Your task to perform on an android device: View the shopping cart on walmart. Image 0: 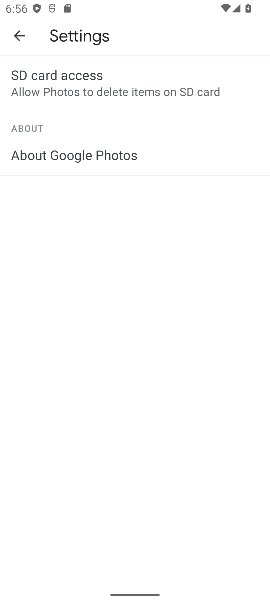
Step 0: press home button
Your task to perform on an android device: View the shopping cart on walmart. Image 1: 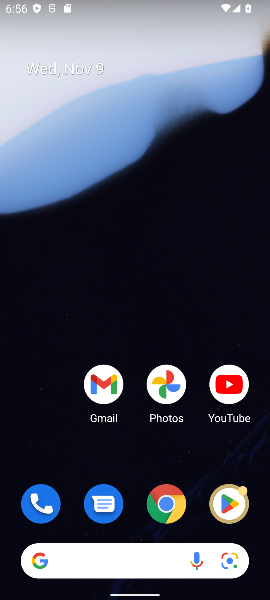
Step 1: click (163, 520)
Your task to perform on an android device: View the shopping cart on walmart. Image 2: 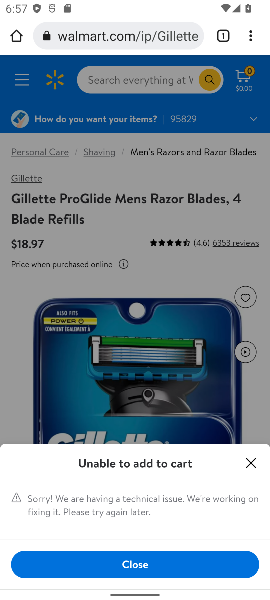
Step 2: click (250, 461)
Your task to perform on an android device: View the shopping cart on walmart. Image 3: 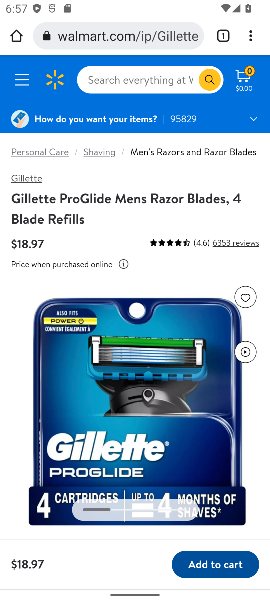
Step 3: click (115, 40)
Your task to perform on an android device: View the shopping cart on walmart. Image 4: 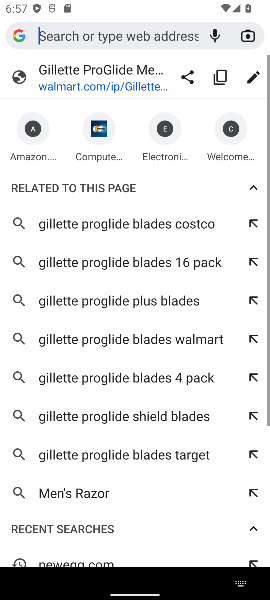
Step 4: click (117, 73)
Your task to perform on an android device: View the shopping cart on walmart. Image 5: 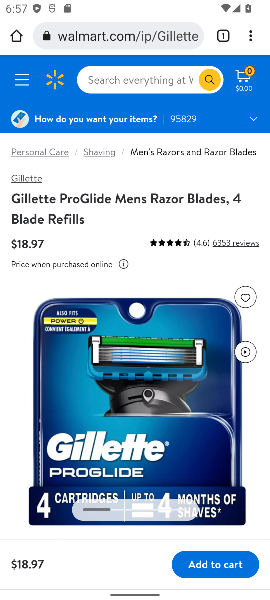
Step 5: click (244, 77)
Your task to perform on an android device: View the shopping cart on walmart. Image 6: 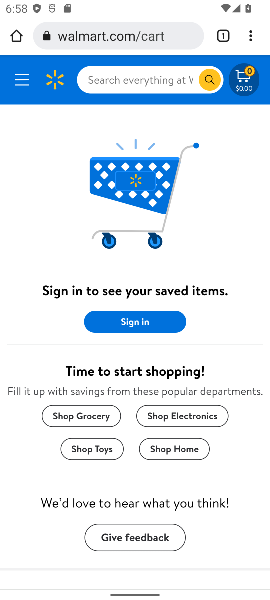
Step 6: task complete